Your task to perform on an android device: Is it going to rain today? Image 0: 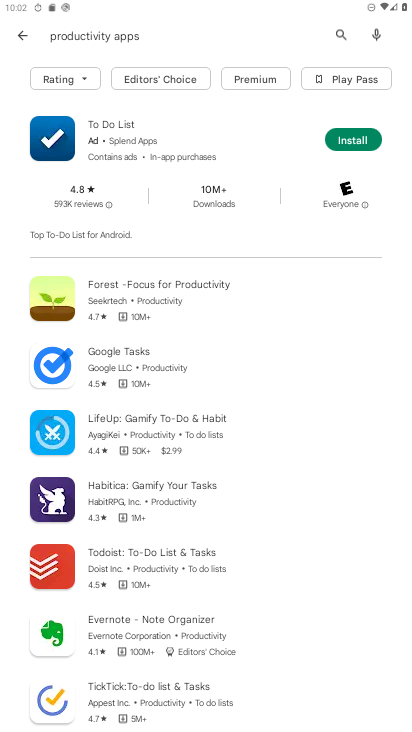
Step 0: press home button
Your task to perform on an android device: Is it going to rain today? Image 1: 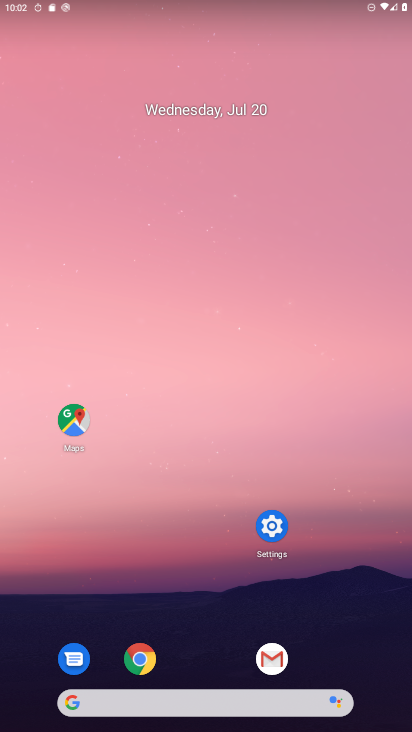
Step 1: click (229, 699)
Your task to perform on an android device: Is it going to rain today? Image 2: 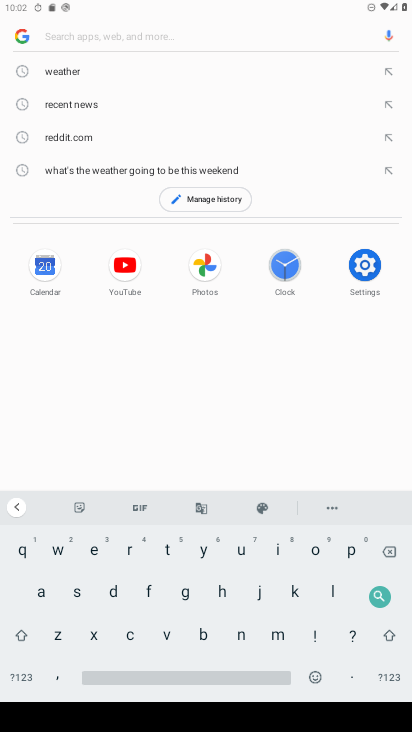
Step 2: click (279, 549)
Your task to perform on an android device: Is it going to rain today? Image 3: 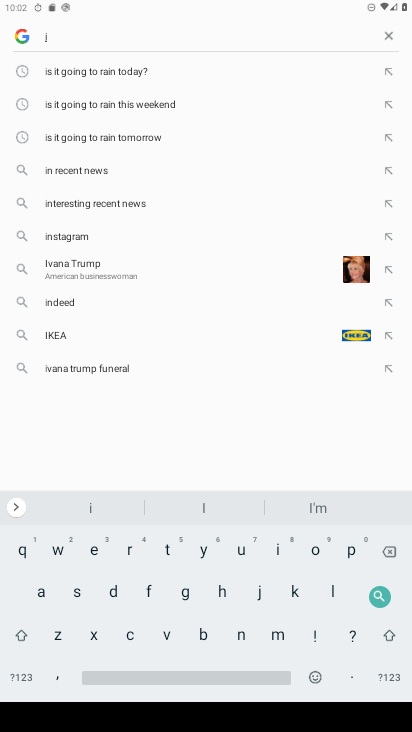
Step 3: click (122, 68)
Your task to perform on an android device: Is it going to rain today? Image 4: 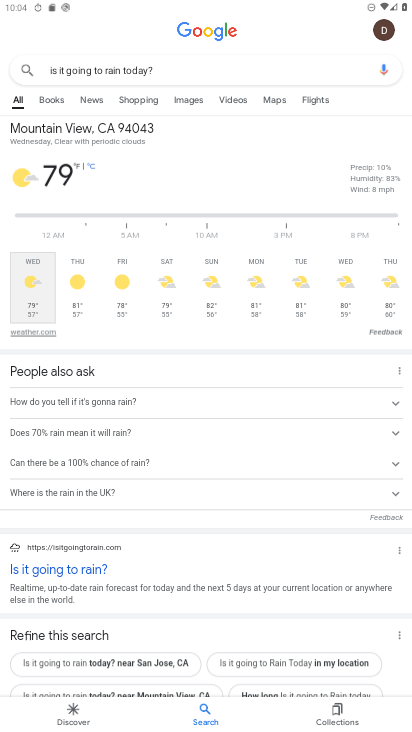
Step 4: task complete